Your task to perform on an android device: Go to eBay Image 0: 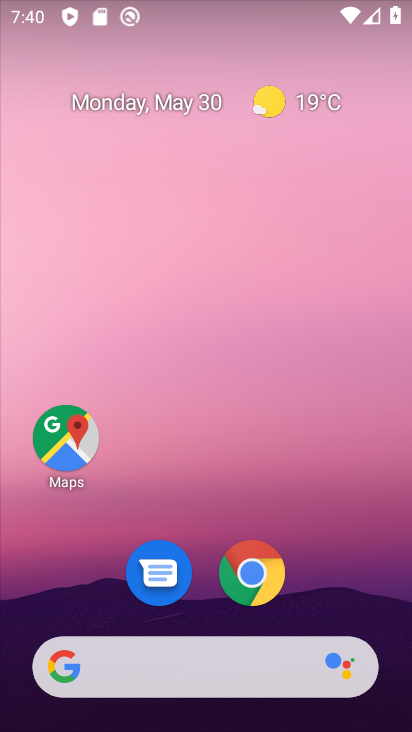
Step 0: click (253, 585)
Your task to perform on an android device: Go to eBay Image 1: 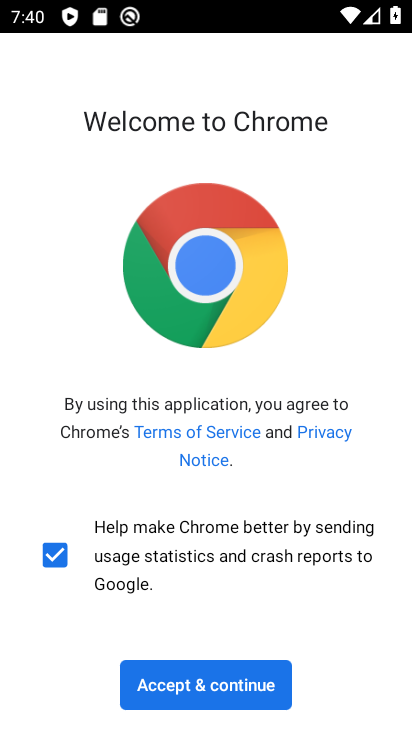
Step 1: click (232, 680)
Your task to perform on an android device: Go to eBay Image 2: 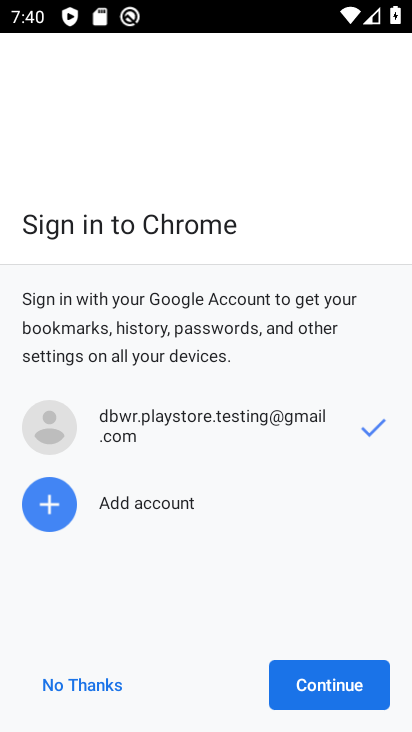
Step 2: click (352, 683)
Your task to perform on an android device: Go to eBay Image 3: 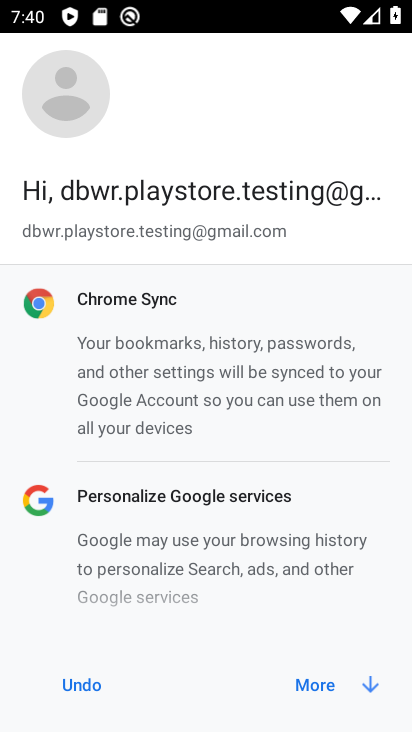
Step 3: click (352, 683)
Your task to perform on an android device: Go to eBay Image 4: 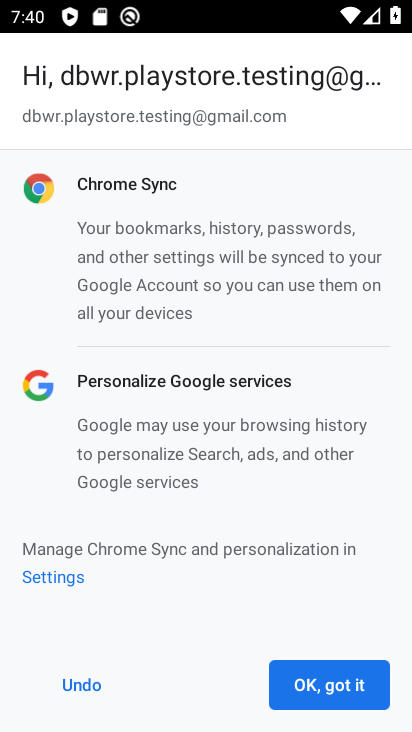
Step 4: click (353, 680)
Your task to perform on an android device: Go to eBay Image 5: 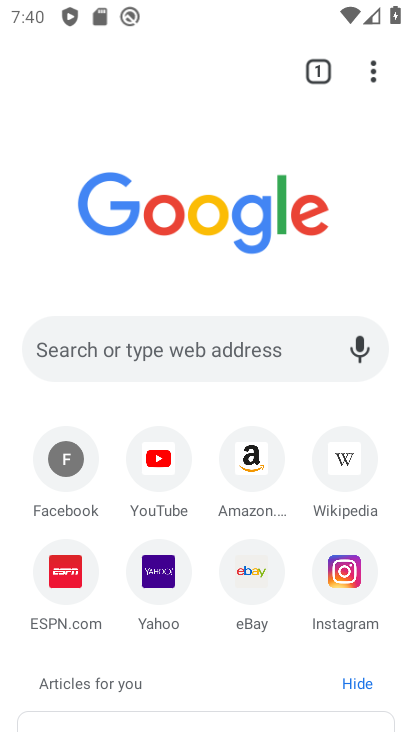
Step 5: click (266, 576)
Your task to perform on an android device: Go to eBay Image 6: 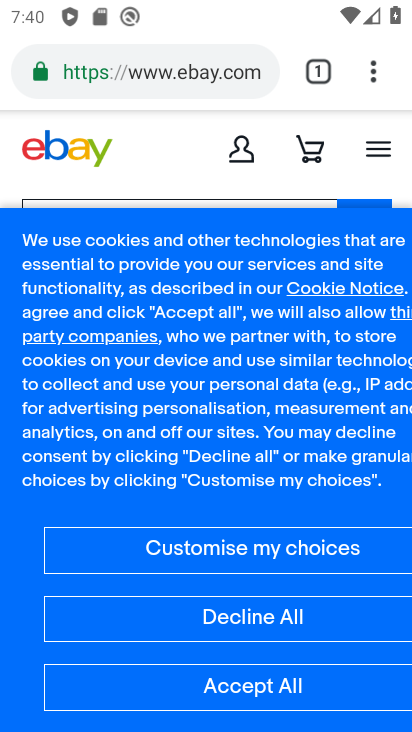
Step 6: task complete